Your task to perform on an android device: Open eBay Image 0: 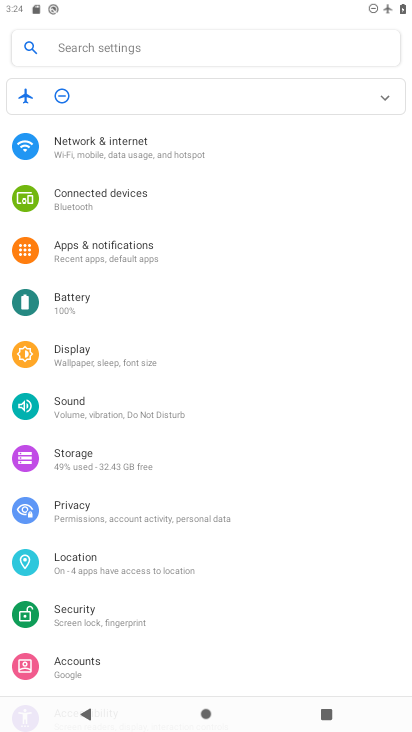
Step 0: drag from (287, 615) to (389, 260)
Your task to perform on an android device: Open eBay Image 1: 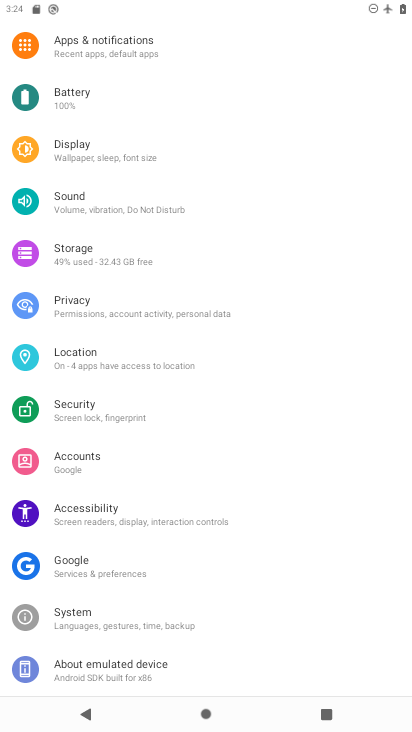
Step 1: press home button
Your task to perform on an android device: Open eBay Image 2: 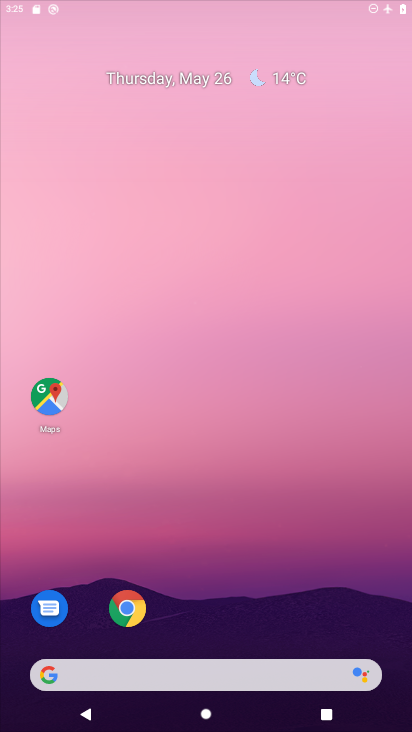
Step 2: drag from (297, 551) to (345, 75)
Your task to perform on an android device: Open eBay Image 3: 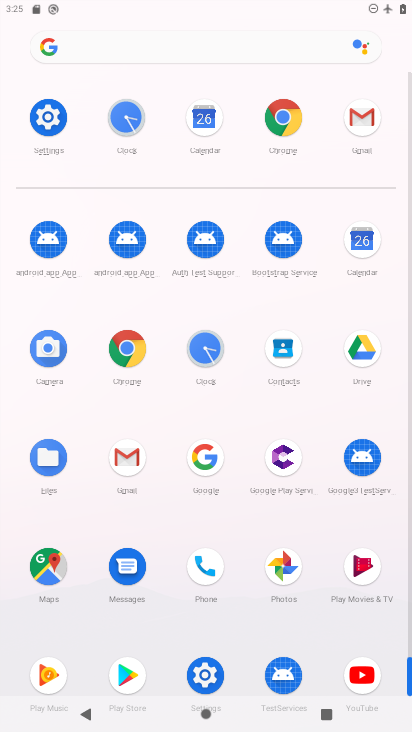
Step 3: click (274, 136)
Your task to perform on an android device: Open eBay Image 4: 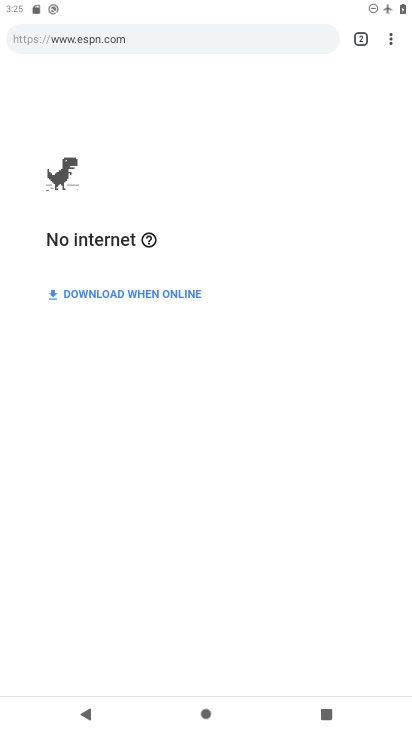
Step 4: click (171, 24)
Your task to perform on an android device: Open eBay Image 5: 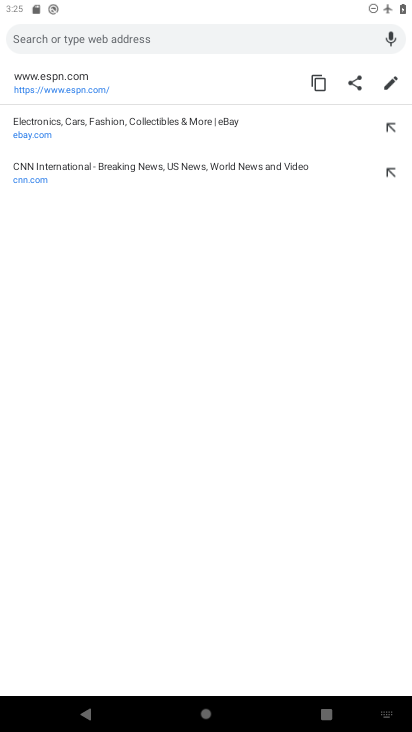
Step 5: type "ebay"
Your task to perform on an android device: Open eBay Image 6: 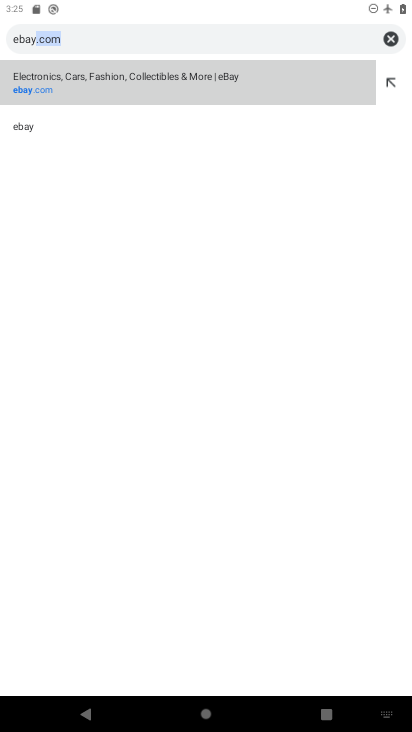
Step 6: press enter
Your task to perform on an android device: Open eBay Image 7: 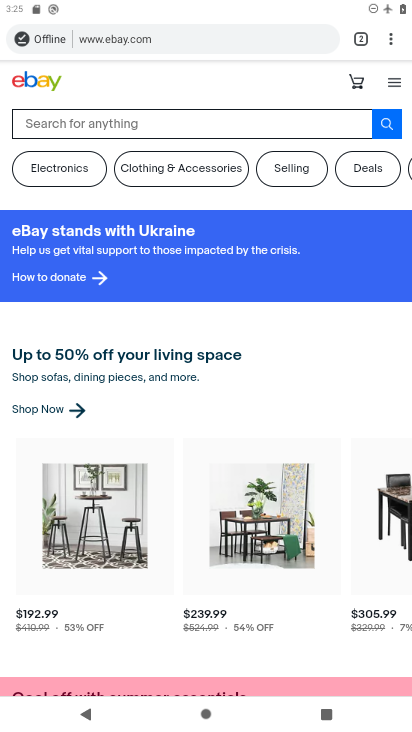
Step 7: task complete